Your task to perform on an android device: see tabs open on other devices in the chrome app Image 0: 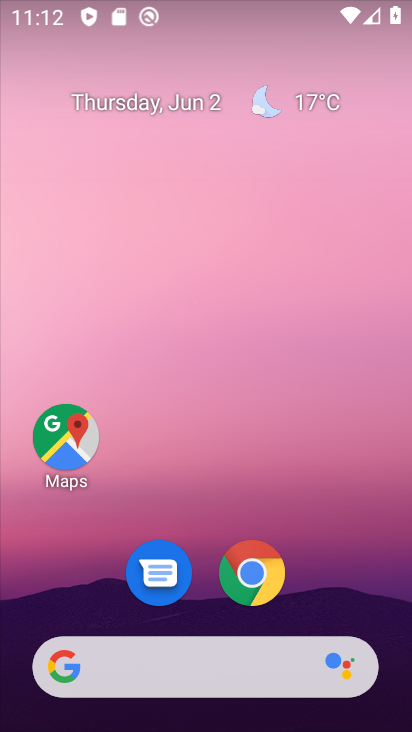
Step 0: task complete